Your task to perform on an android device: refresh tabs in the chrome app Image 0: 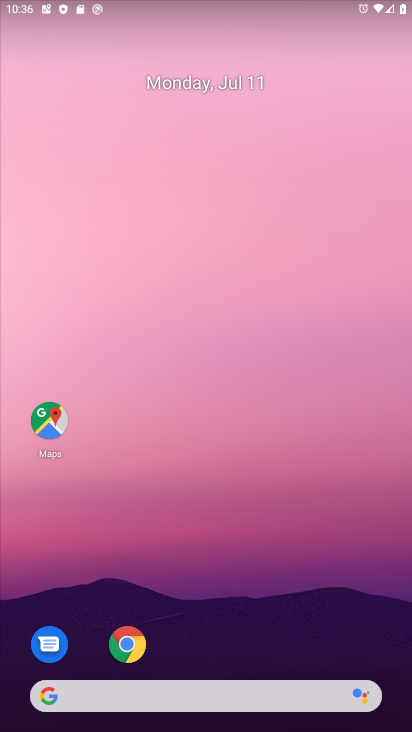
Step 0: press home button
Your task to perform on an android device: refresh tabs in the chrome app Image 1: 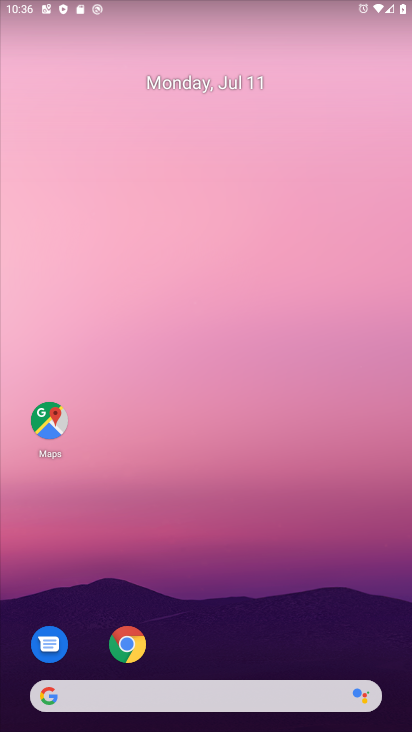
Step 1: click (126, 642)
Your task to perform on an android device: refresh tabs in the chrome app Image 2: 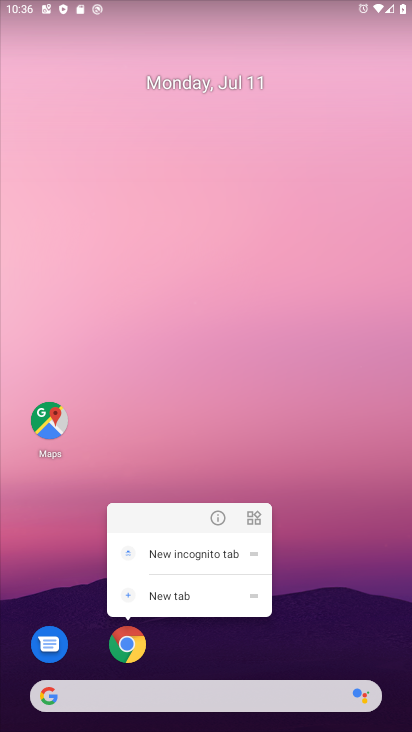
Step 2: click (126, 642)
Your task to perform on an android device: refresh tabs in the chrome app Image 3: 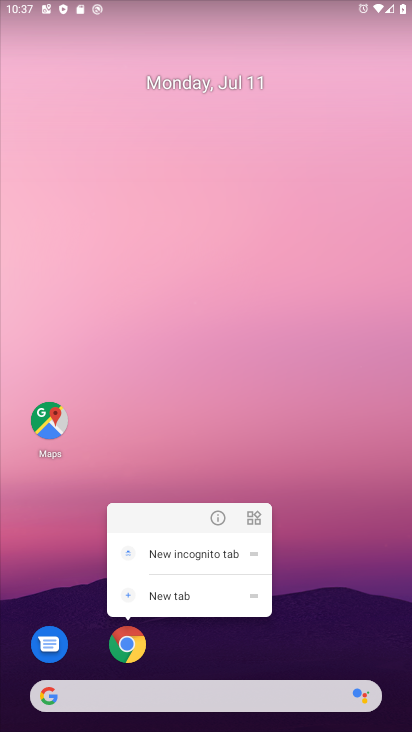
Step 3: click (126, 642)
Your task to perform on an android device: refresh tabs in the chrome app Image 4: 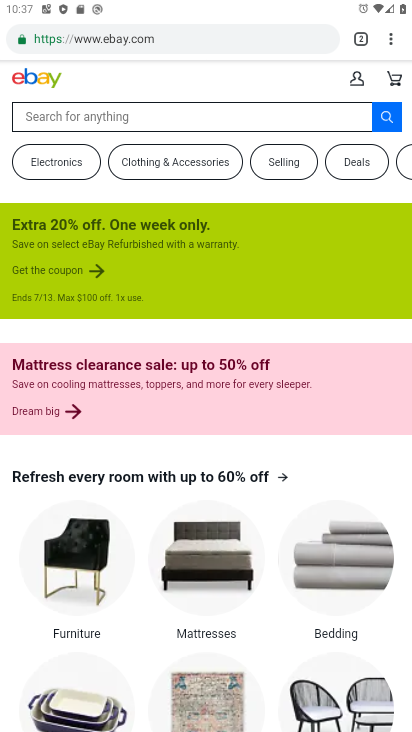
Step 4: click (392, 38)
Your task to perform on an android device: refresh tabs in the chrome app Image 5: 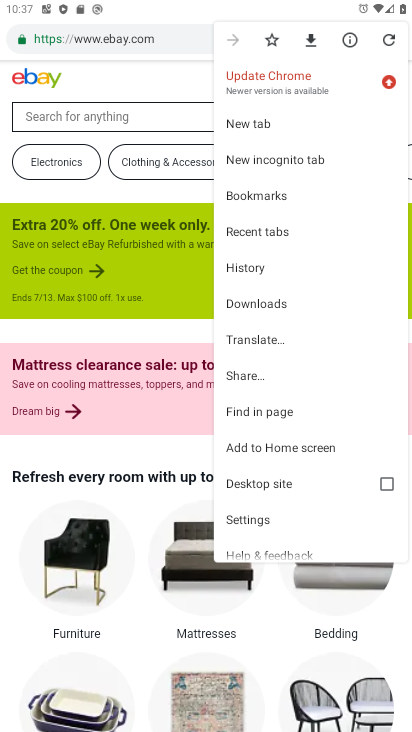
Step 5: click (391, 33)
Your task to perform on an android device: refresh tabs in the chrome app Image 6: 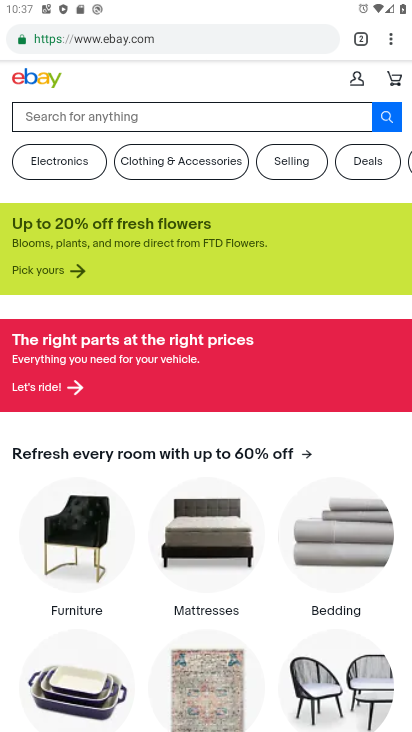
Step 6: task complete